Your task to perform on an android device: Show the shopping cart on ebay.com. Add "beats solo 3" to the cart on ebay.com, then select checkout. Image 0: 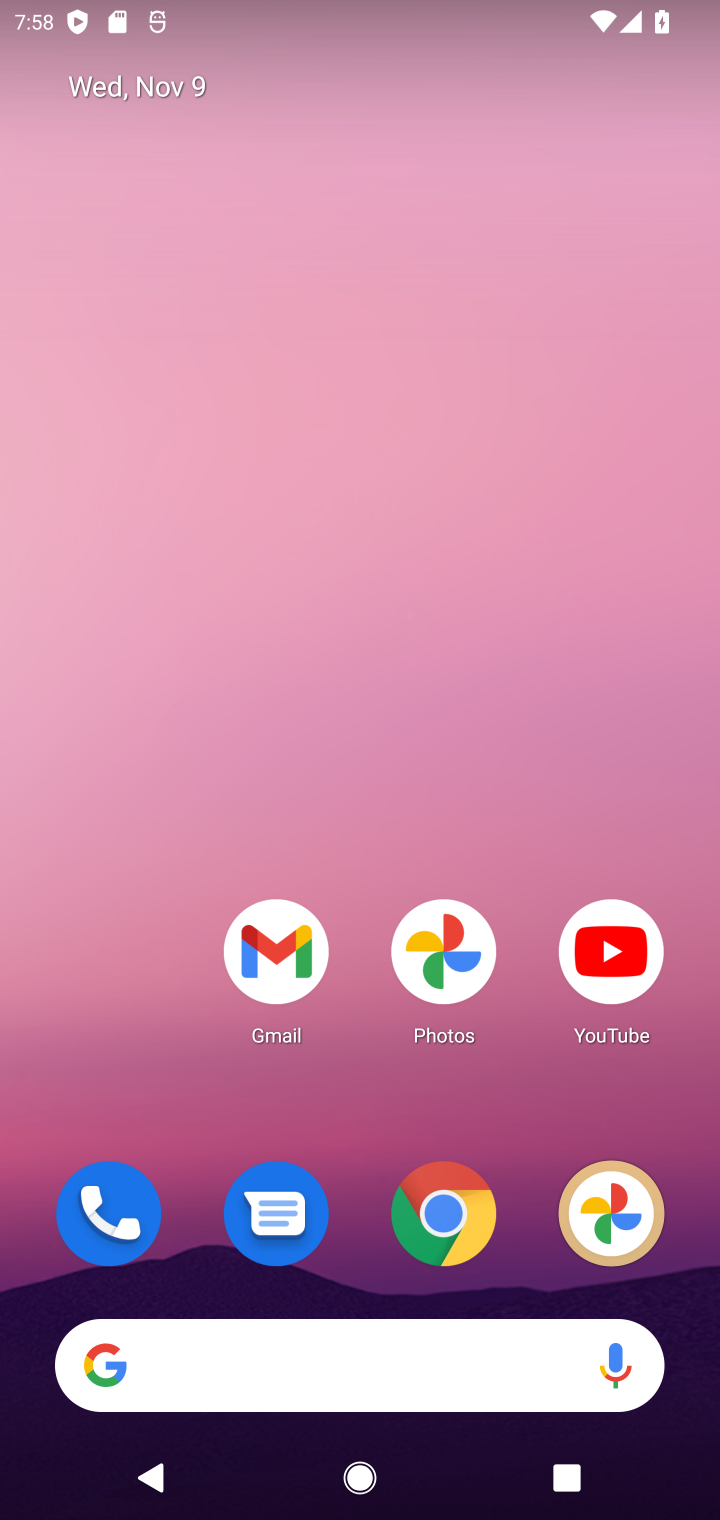
Step 0: click (481, 1202)
Your task to perform on an android device: Show the shopping cart on ebay.com. Add "beats solo 3" to the cart on ebay.com, then select checkout. Image 1: 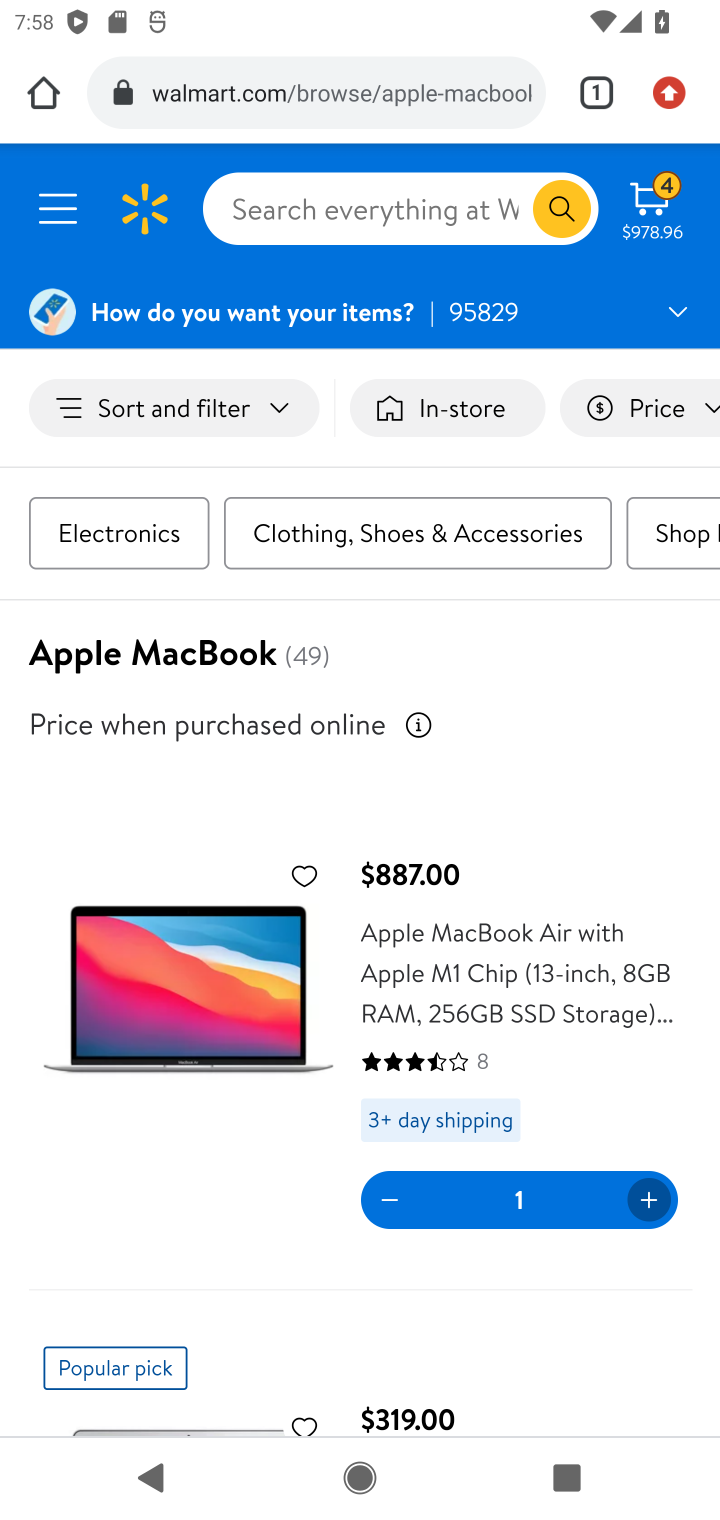
Step 1: click (185, 93)
Your task to perform on an android device: Show the shopping cart on ebay.com. Add "beats solo 3" to the cart on ebay.com, then select checkout. Image 2: 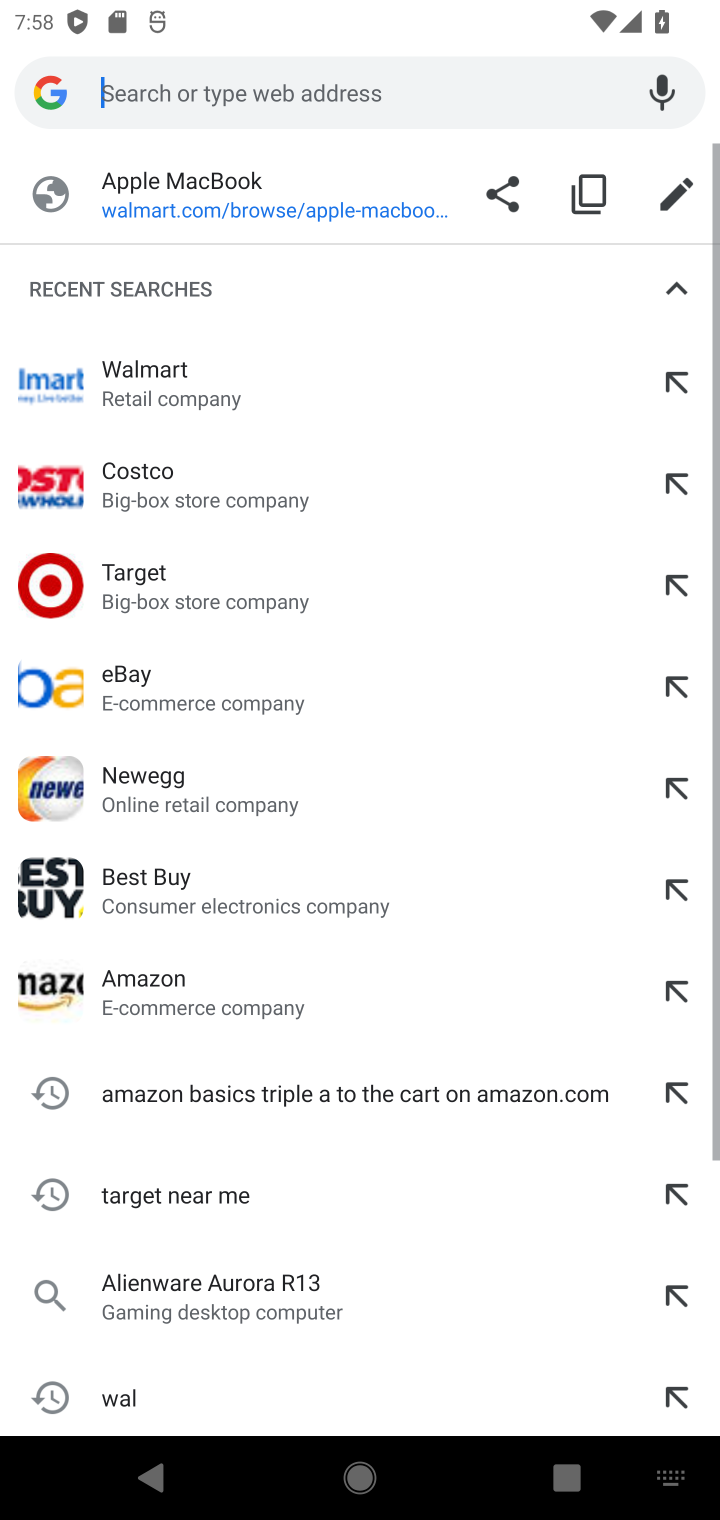
Step 2: click (121, 705)
Your task to perform on an android device: Show the shopping cart on ebay.com. Add "beats solo 3" to the cart on ebay.com, then select checkout. Image 3: 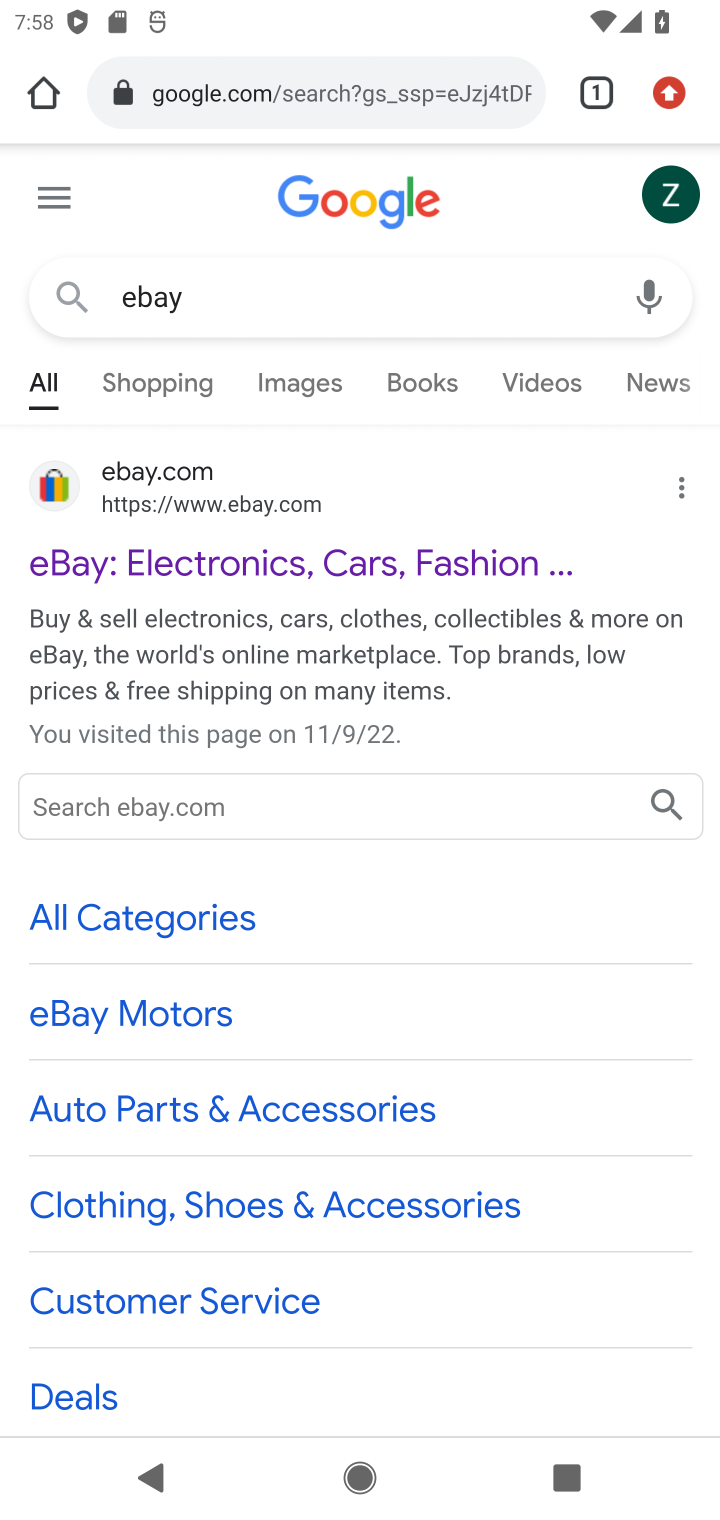
Step 3: click (238, 576)
Your task to perform on an android device: Show the shopping cart on ebay.com. Add "beats solo 3" to the cart on ebay.com, then select checkout. Image 4: 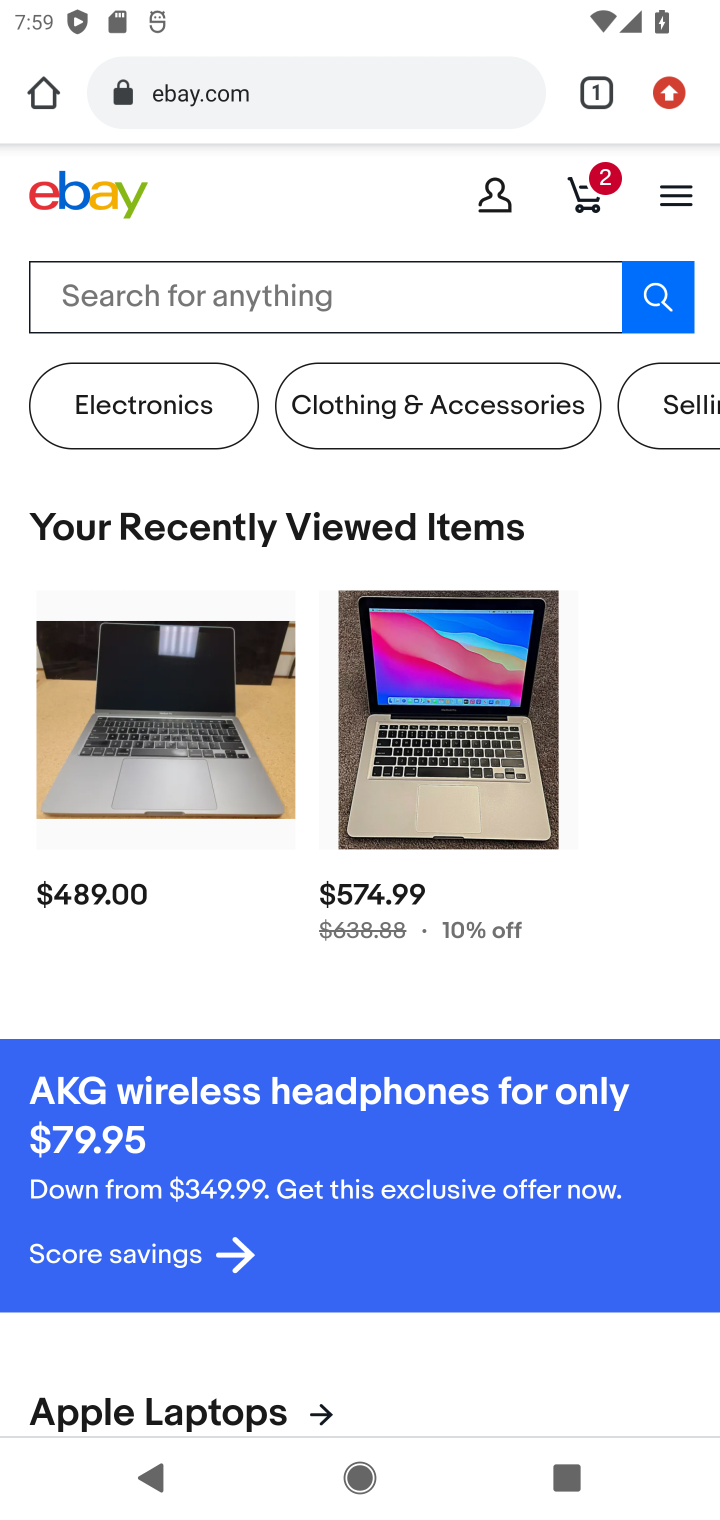
Step 4: click (143, 298)
Your task to perform on an android device: Show the shopping cart on ebay.com. Add "beats solo 3" to the cart on ebay.com, then select checkout. Image 5: 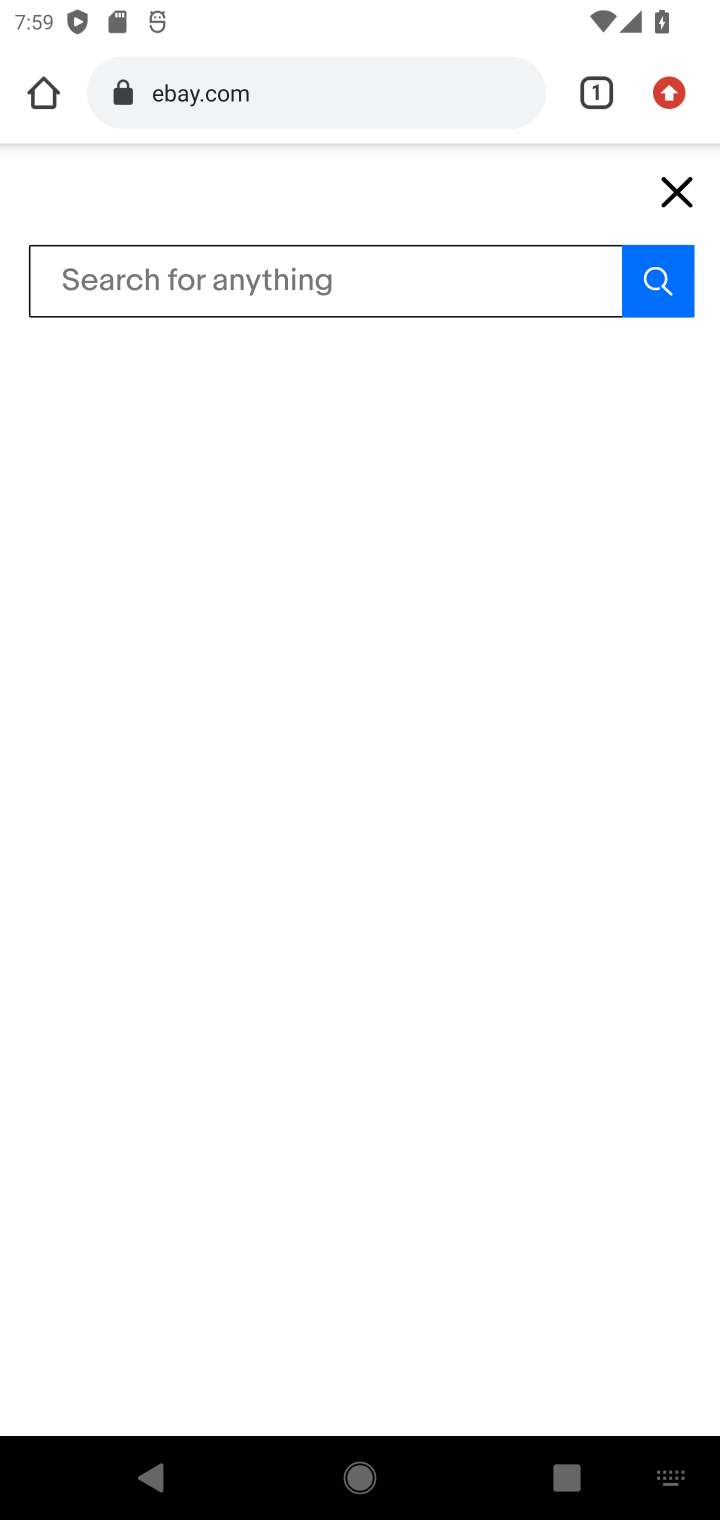
Step 5: type "beats solo 3"
Your task to perform on an android device: Show the shopping cart on ebay.com. Add "beats solo 3" to the cart on ebay.com, then select checkout. Image 6: 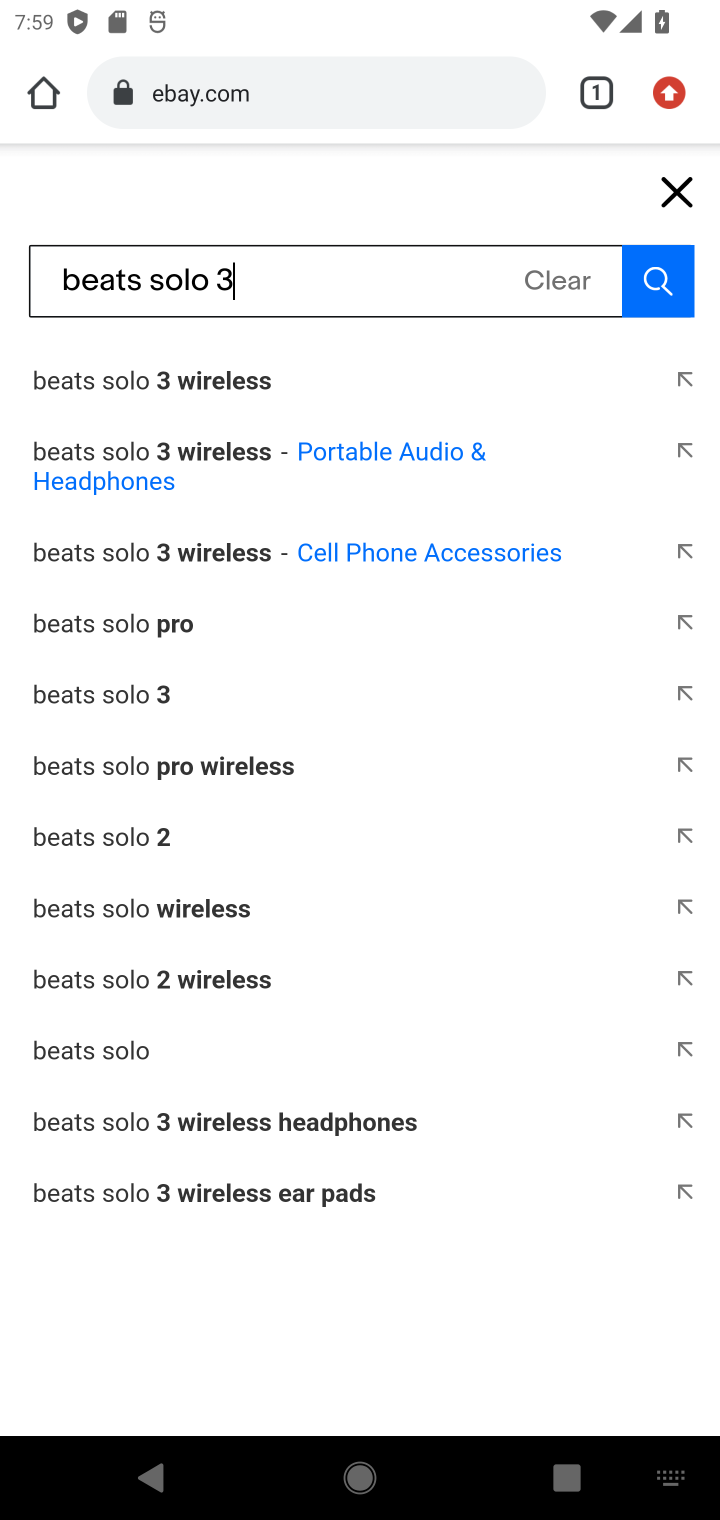
Step 6: click (97, 611)
Your task to perform on an android device: Show the shopping cart on ebay.com. Add "beats solo 3" to the cart on ebay.com, then select checkout. Image 7: 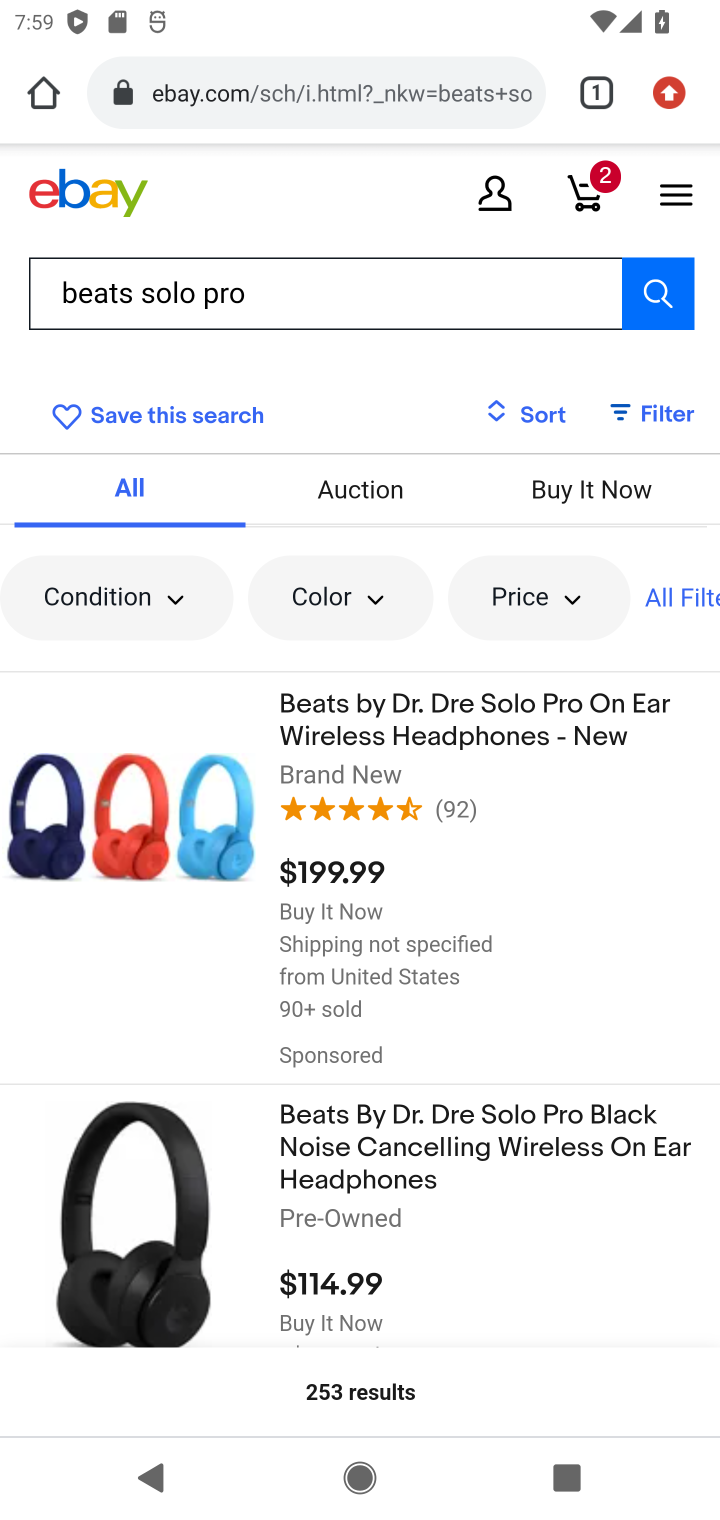
Step 7: drag from (310, 1130) to (394, 302)
Your task to perform on an android device: Show the shopping cart on ebay.com. Add "beats solo 3" to the cart on ebay.com, then select checkout. Image 8: 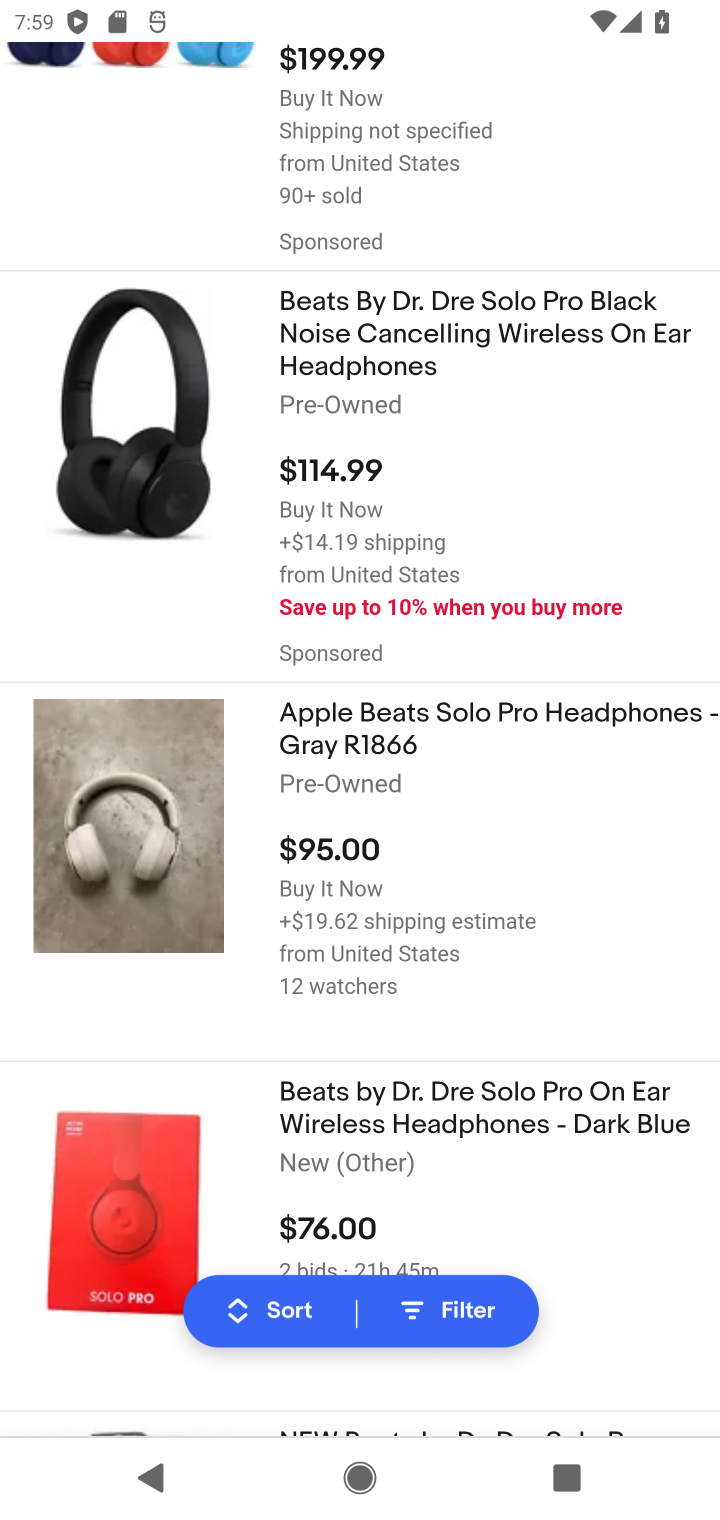
Step 8: drag from (136, 1094) to (123, 798)
Your task to perform on an android device: Show the shopping cart on ebay.com. Add "beats solo 3" to the cart on ebay.com, then select checkout. Image 9: 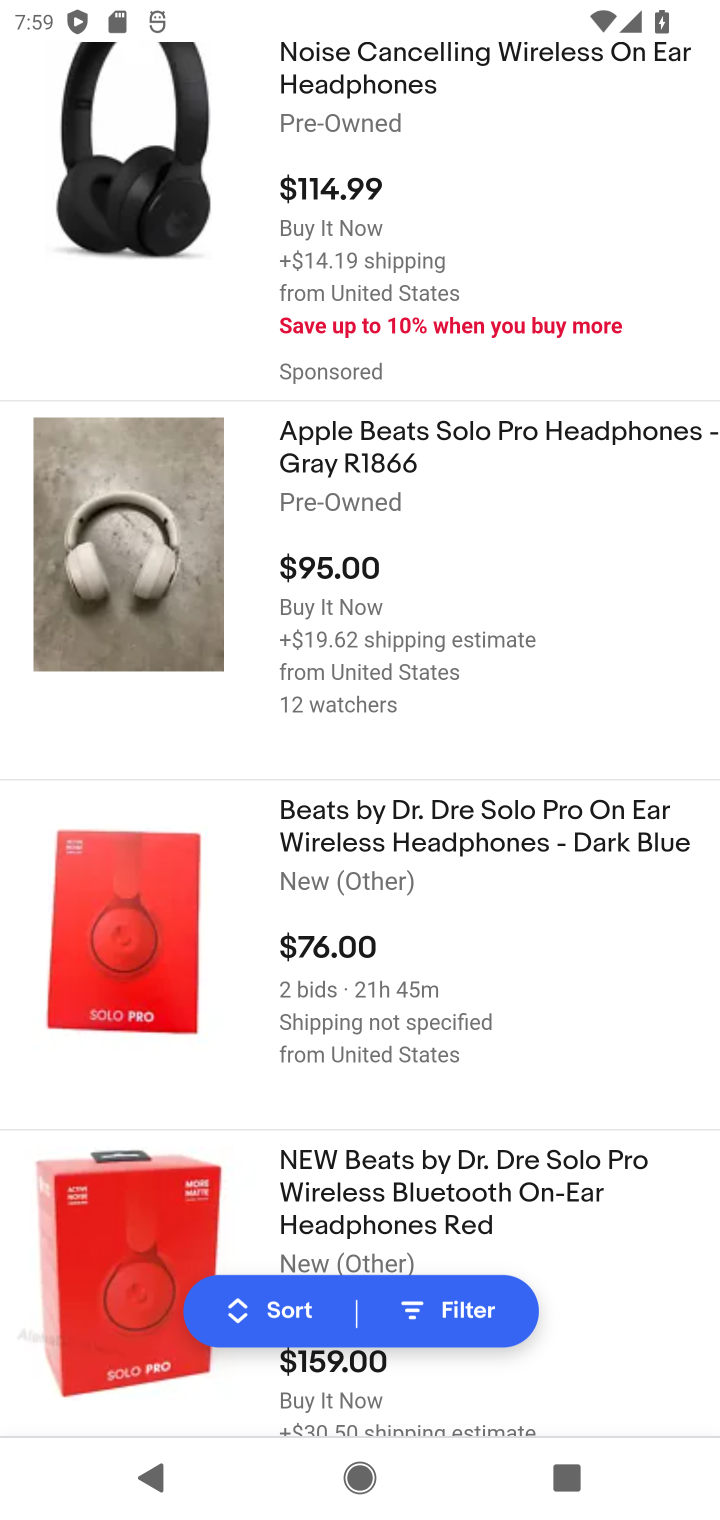
Step 9: click (448, 831)
Your task to perform on an android device: Show the shopping cart on ebay.com. Add "beats solo 3" to the cart on ebay.com, then select checkout. Image 10: 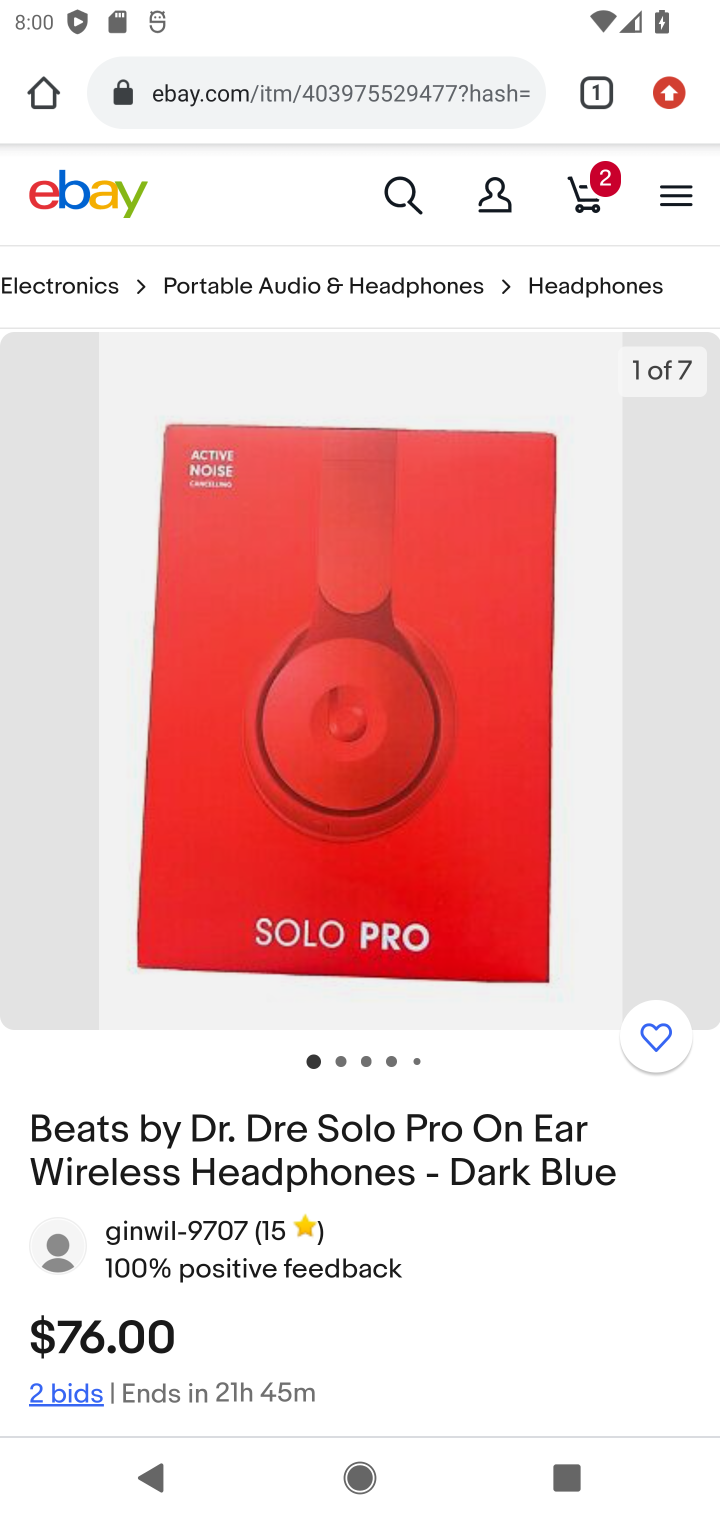
Step 10: task complete